Your task to perform on an android device: allow notifications from all sites in the chrome app Image 0: 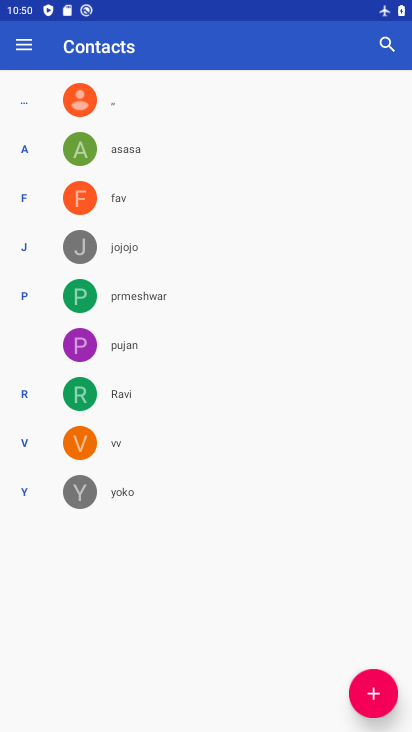
Step 0: press home button
Your task to perform on an android device: allow notifications from all sites in the chrome app Image 1: 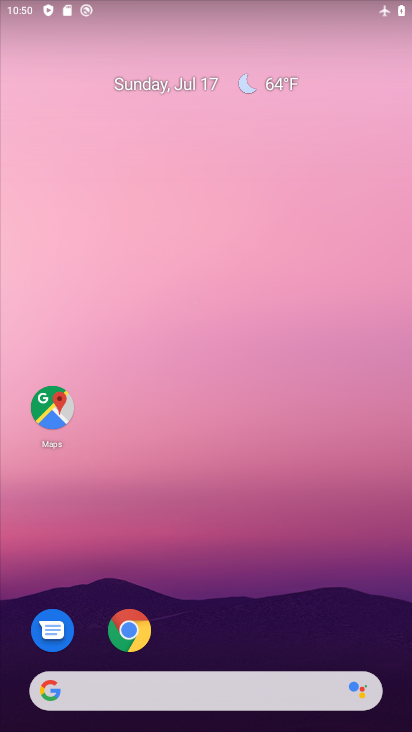
Step 1: click (127, 628)
Your task to perform on an android device: allow notifications from all sites in the chrome app Image 2: 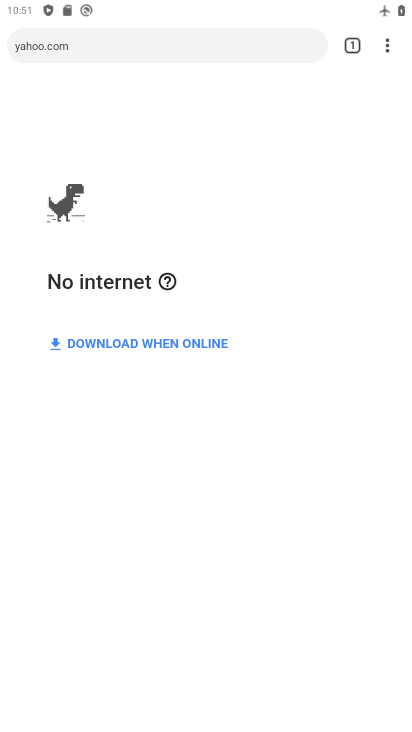
Step 2: click (386, 55)
Your task to perform on an android device: allow notifications from all sites in the chrome app Image 3: 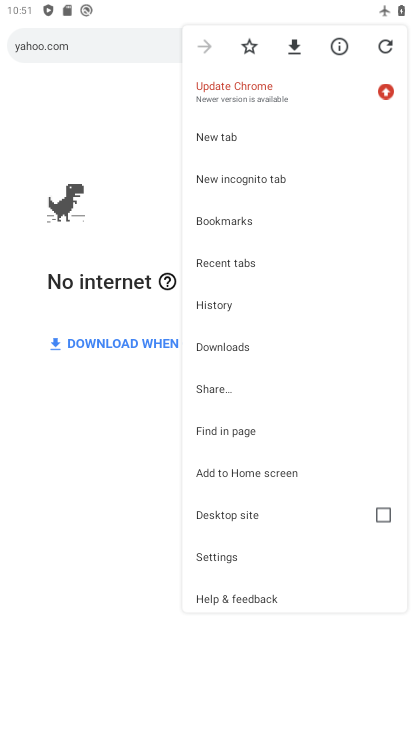
Step 3: click (228, 557)
Your task to perform on an android device: allow notifications from all sites in the chrome app Image 4: 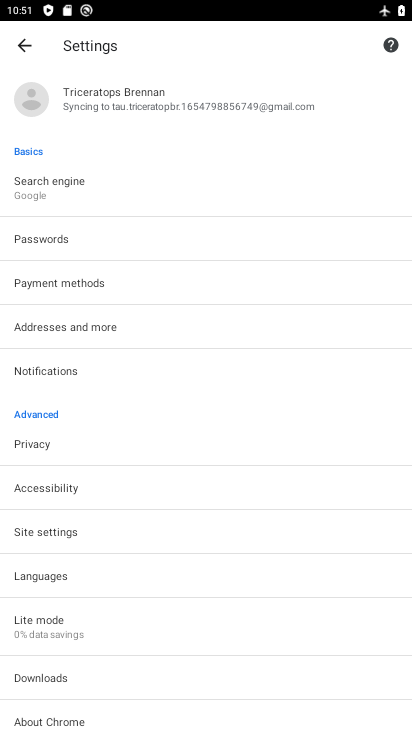
Step 4: click (41, 524)
Your task to perform on an android device: allow notifications from all sites in the chrome app Image 5: 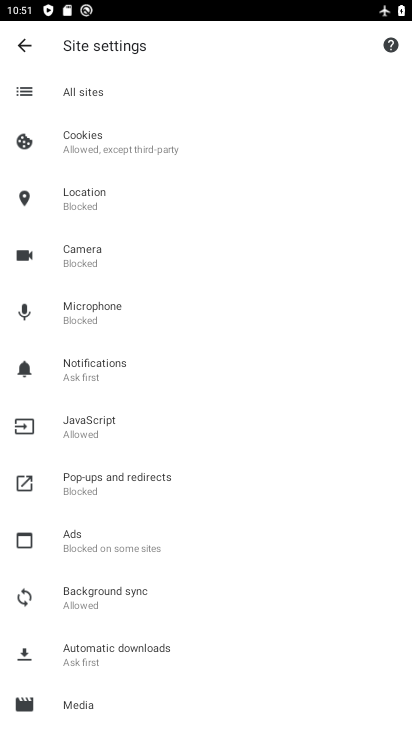
Step 5: click (86, 377)
Your task to perform on an android device: allow notifications from all sites in the chrome app Image 6: 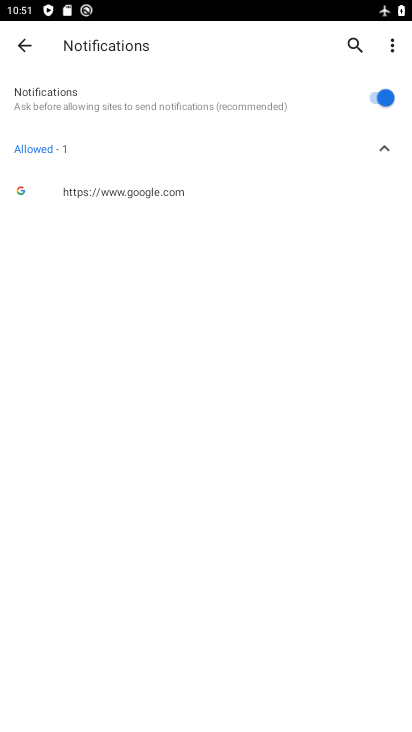
Step 6: task complete